Your task to perform on an android device: Open my contact list Image 0: 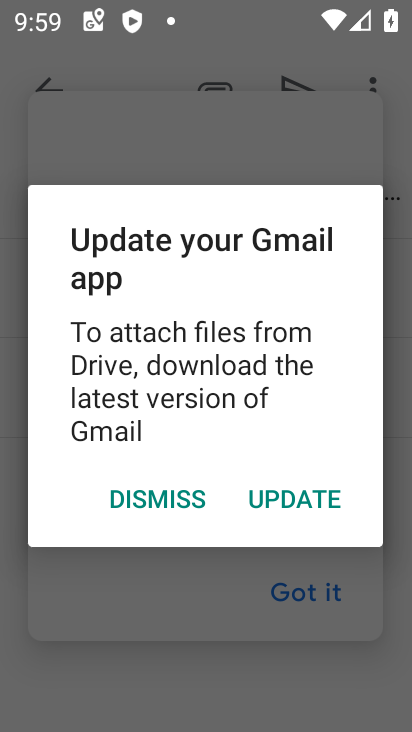
Step 0: press home button
Your task to perform on an android device: Open my contact list Image 1: 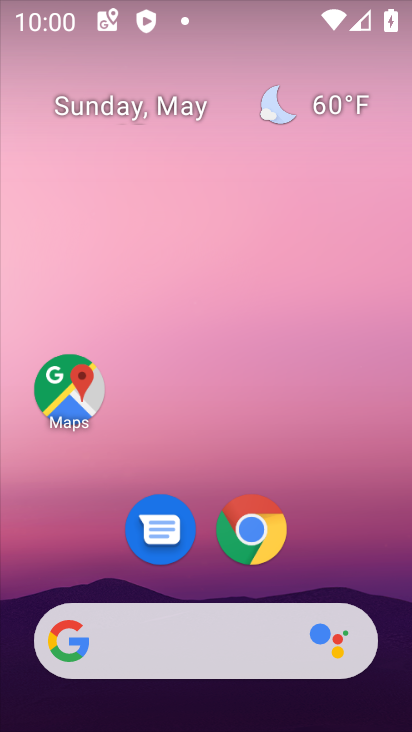
Step 1: drag from (346, 560) to (315, 116)
Your task to perform on an android device: Open my contact list Image 2: 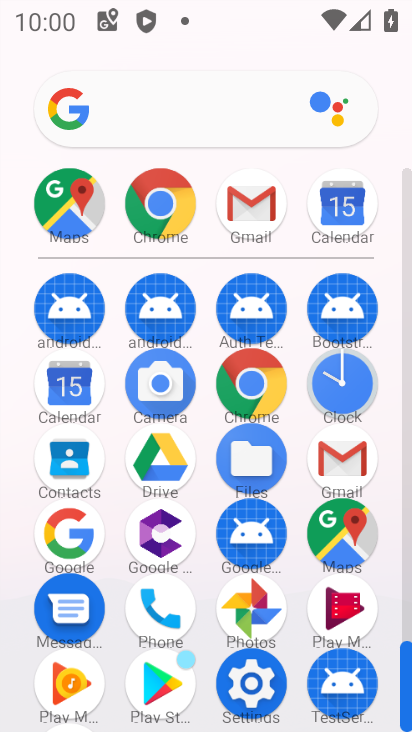
Step 2: click (75, 469)
Your task to perform on an android device: Open my contact list Image 3: 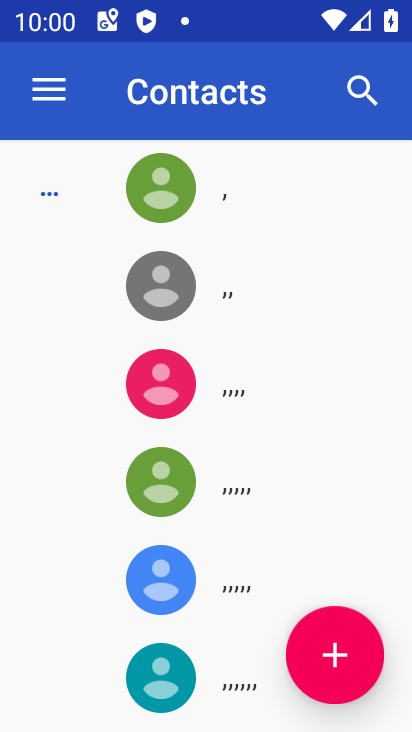
Step 3: task complete